Your task to perform on an android device: add a contact Image 0: 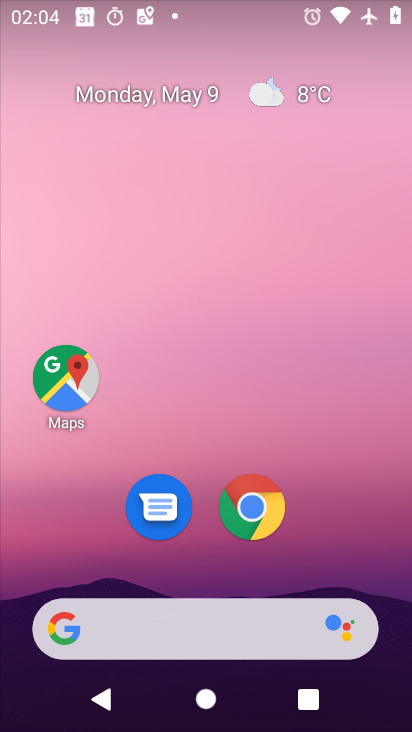
Step 0: drag from (221, 716) to (216, 393)
Your task to perform on an android device: add a contact Image 1: 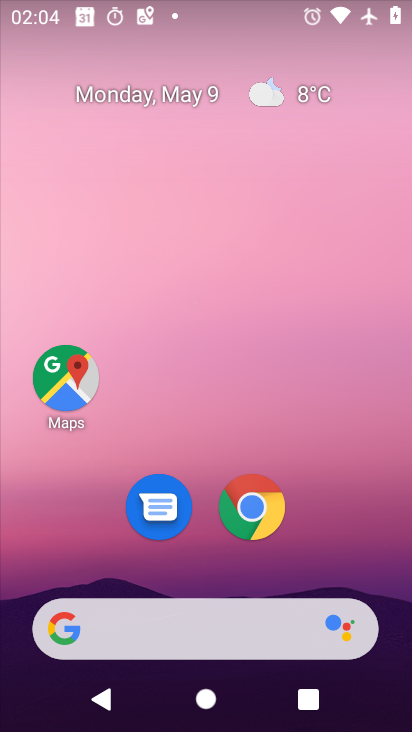
Step 1: drag from (220, 727) to (222, 406)
Your task to perform on an android device: add a contact Image 2: 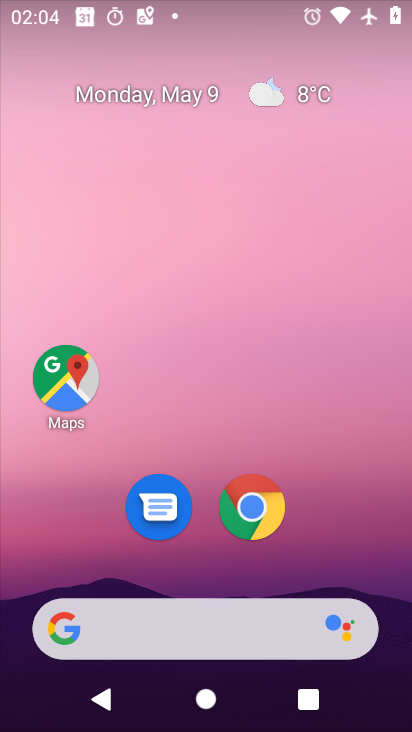
Step 2: drag from (227, 726) to (208, 6)
Your task to perform on an android device: add a contact Image 3: 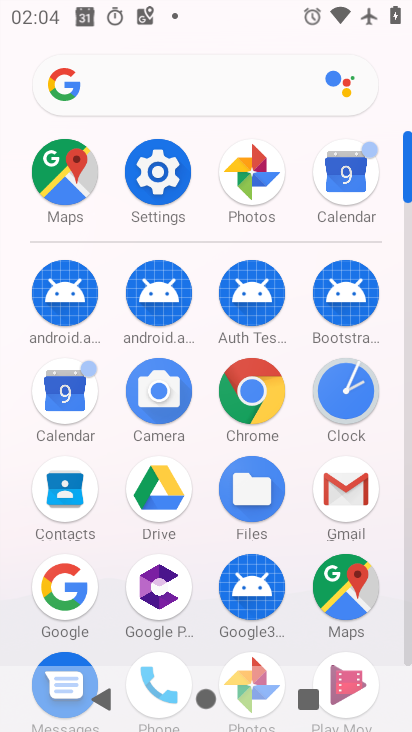
Step 3: click (58, 488)
Your task to perform on an android device: add a contact Image 4: 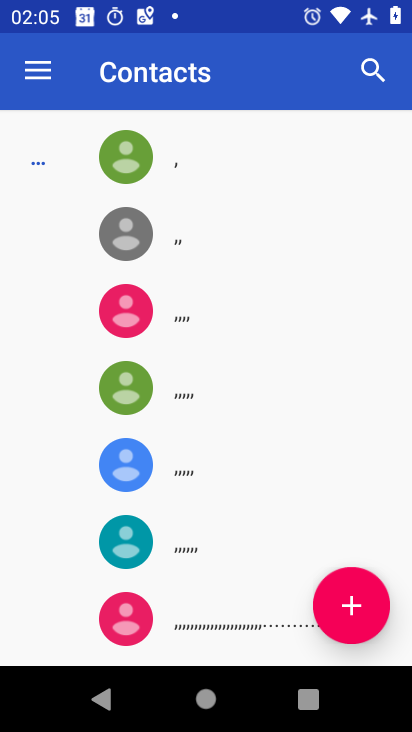
Step 4: task complete